Your task to perform on an android device: Open the stopwatch Image 0: 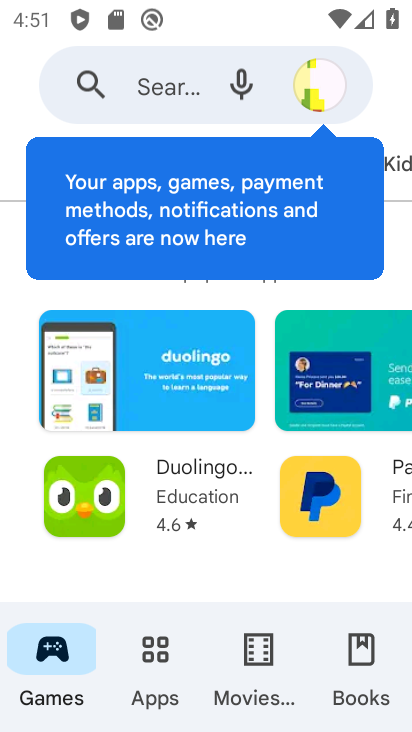
Step 0: press home button
Your task to perform on an android device: Open the stopwatch Image 1: 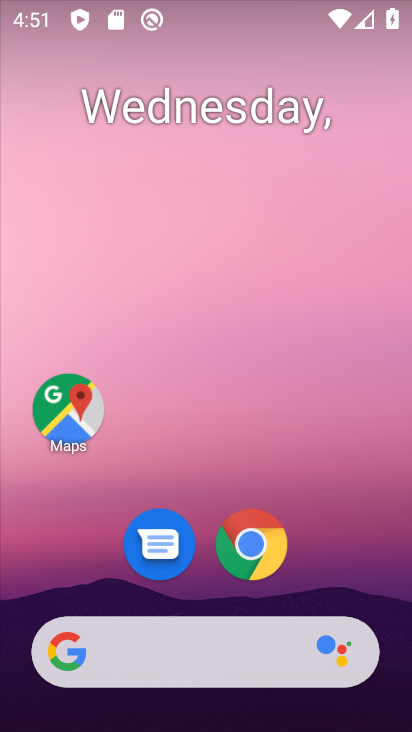
Step 1: drag from (218, 603) to (295, 47)
Your task to perform on an android device: Open the stopwatch Image 2: 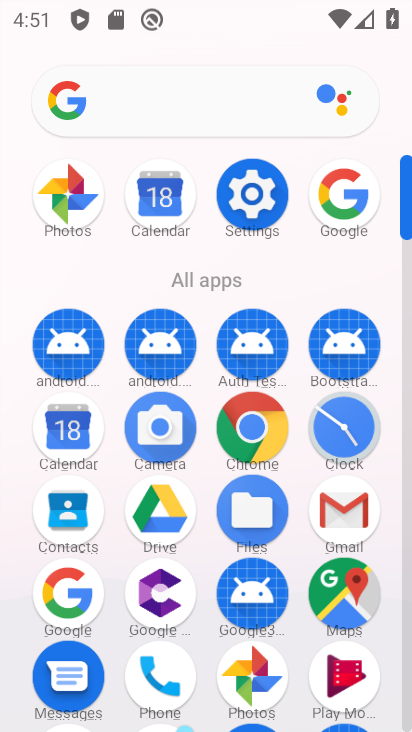
Step 2: click (347, 433)
Your task to perform on an android device: Open the stopwatch Image 3: 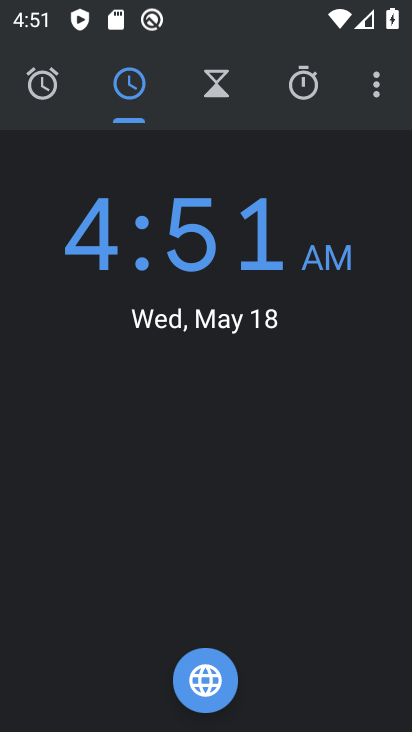
Step 3: click (327, 85)
Your task to perform on an android device: Open the stopwatch Image 4: 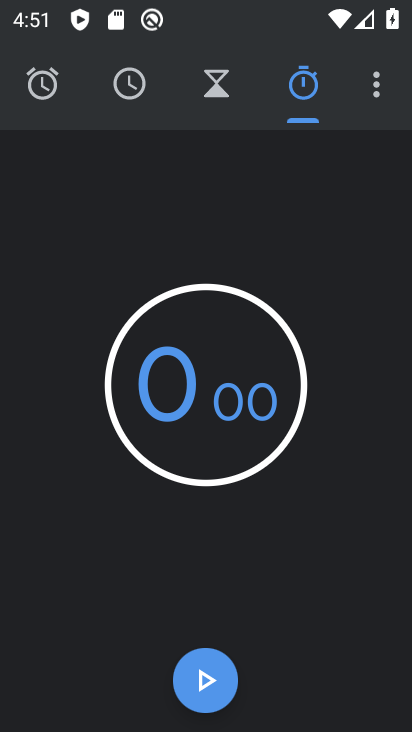
Step 4: click (235, 667)
Your task to perform on an android device: Open the stopwatch Image 5: 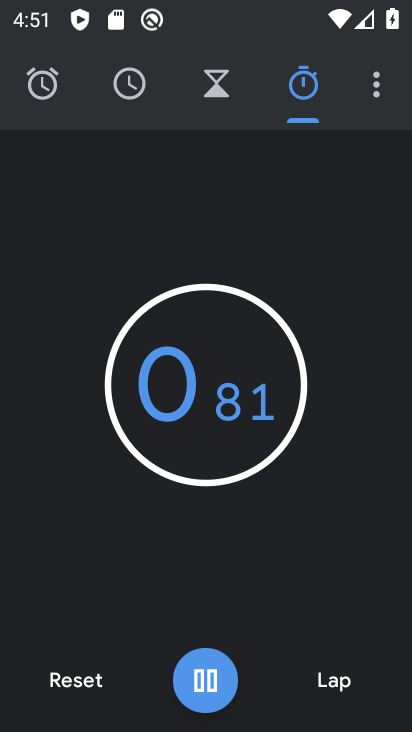
Step 5: click (235, 667)
Your task to perform on an android device: Open the stopwatch Image 6: 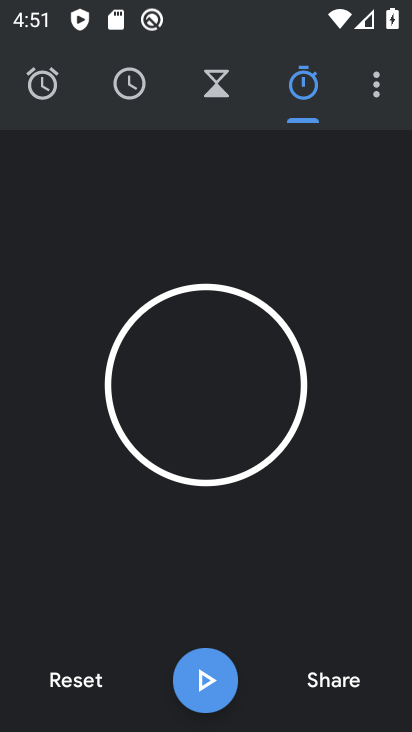
Step 6: task complete